Your task to perform on an android device: Show me recent news Image 0: 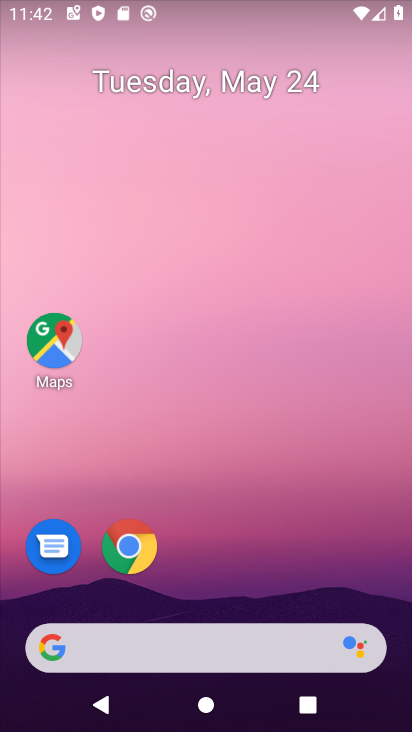
Step 0: click (265, 636)
Your task to perform on an android device: Show me recent news Image 1: 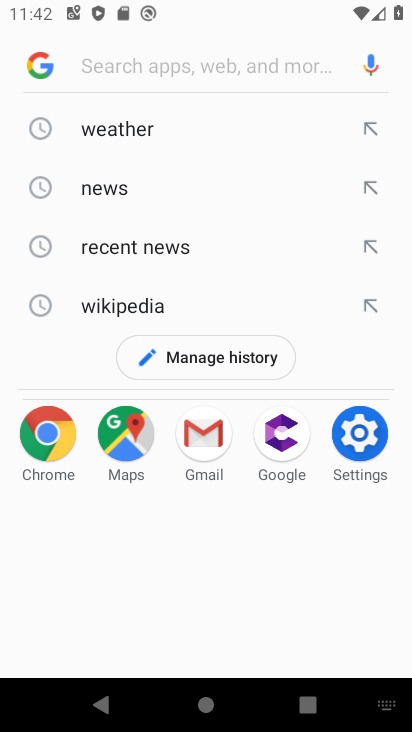
Step 1: click (136, 248)
Your task to perform on an android device: Show me recent news Image 2: 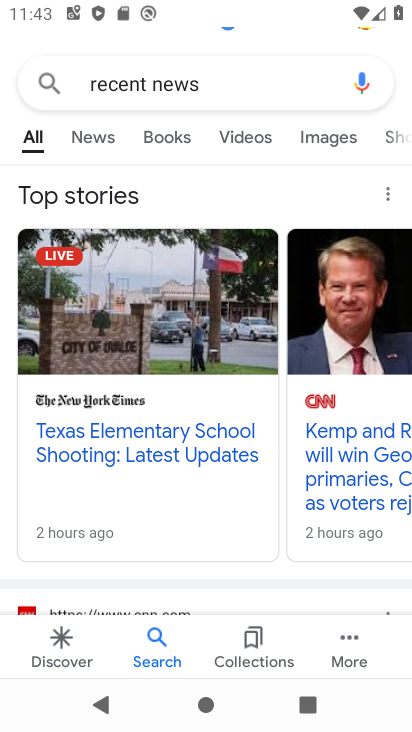
Step 2: task complete